Your task to perform on an android device: Toggle the flashlight Image 0: 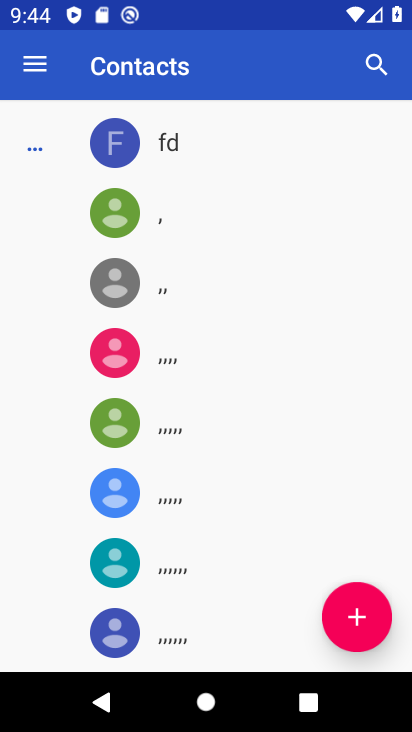
Step 0: press home button
Your task to perform on an android device: Toggle the flashlight Image 1: 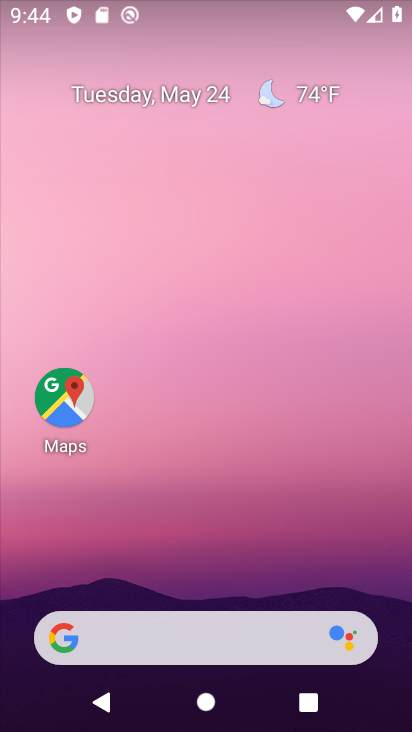
Step 1: drag from (208, 587) to (172, 4)
Your task to perform on an android device: Toggle the flashlight Image 2: 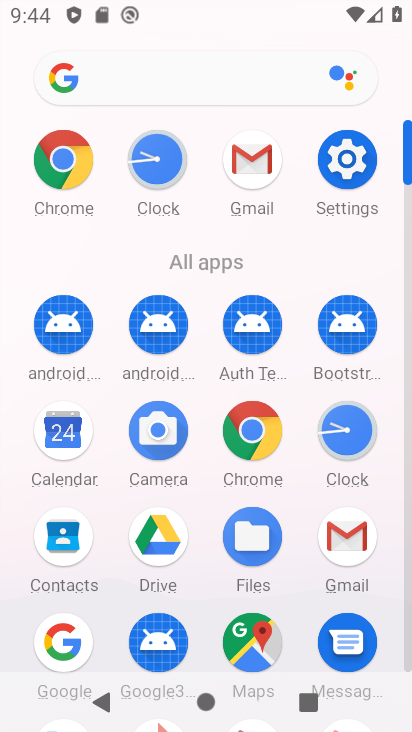
Step 2: click (342, 164)
Your task to perform on an android device: Toggle the flashlight Image 3: 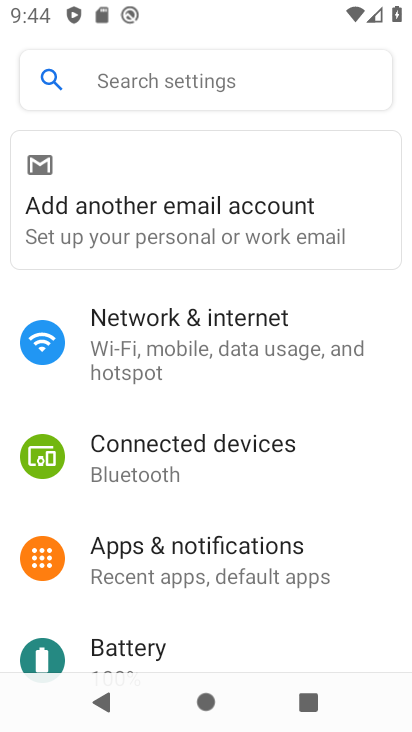
Step 3: task complete